Your task to perform on an android device: Open settings on Google Maps Image 0: 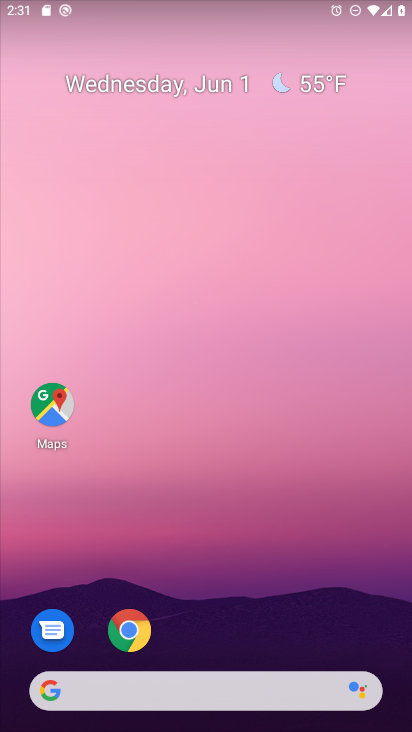
Step 0: drag from (266, 692) to (405, 618)
Your task to perform on an android device: Open settings on Google Maps Image 1: 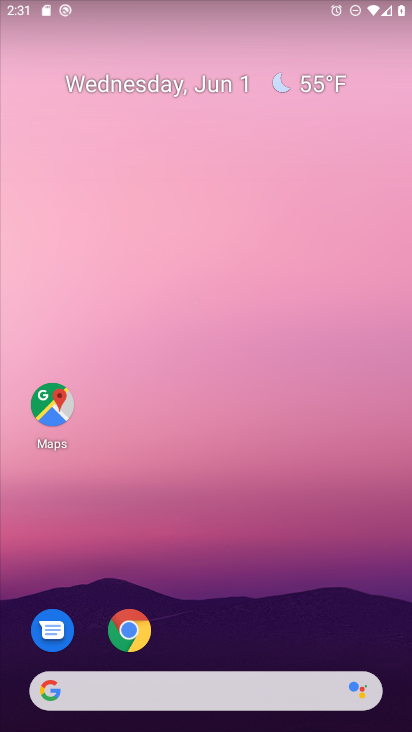
Step 1: drag from (108, 660) to (156, 4)
Your task to perform on an android device: Open settings on Google Maps Image 2: 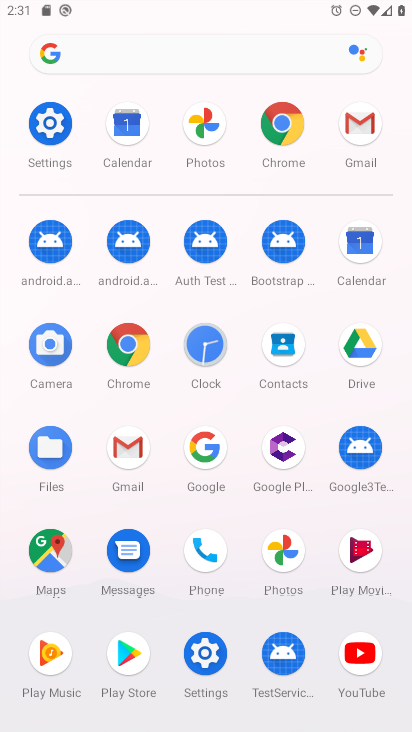
Step 2: click (39, 566)
Your task to perform on an android device: Open settings on Google Maps Image 3: 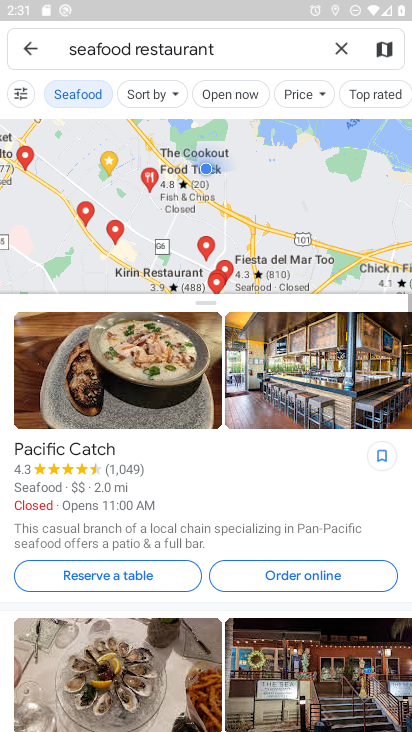
Step 3: press back button
Your task to perform on an android device: Open settings on Google Maps Image 4: 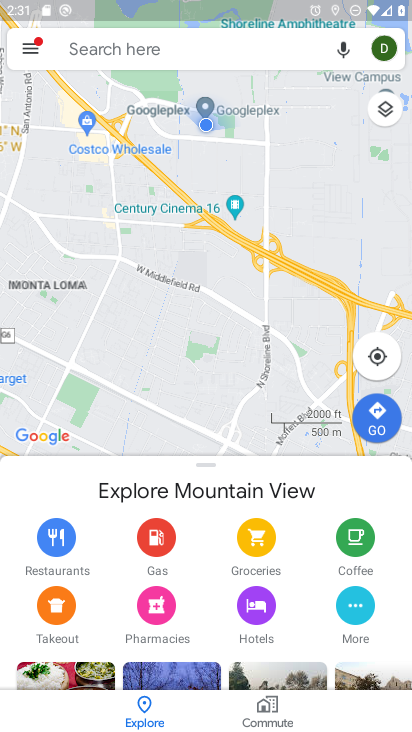
Step 4: click (33, 48)
Your task to perform on an android device: Open settings on Google Maps Image 5: 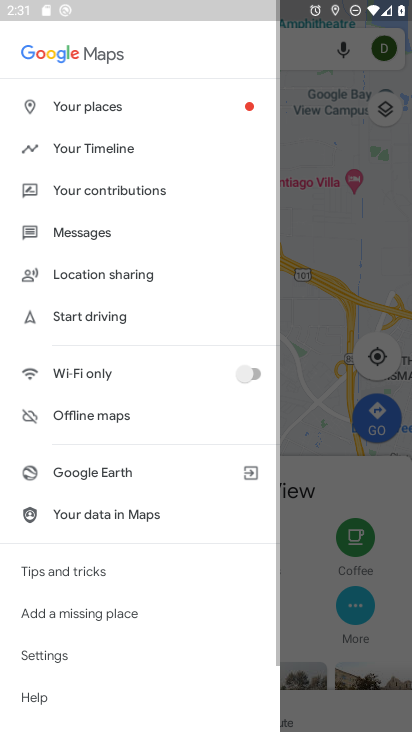
Step 5: click (83, 142)
Your task to perform on an android device: Open settings on Google Maps Image 6: 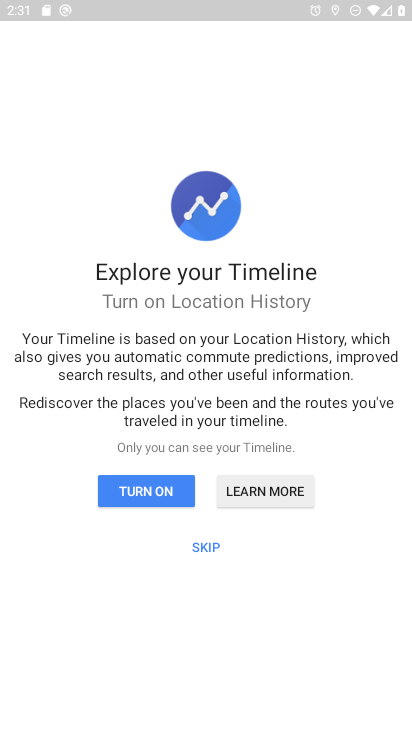
Step 6: click (198, 548)
Your task to perform on an android device: Open settings on Google Maps Image 7: 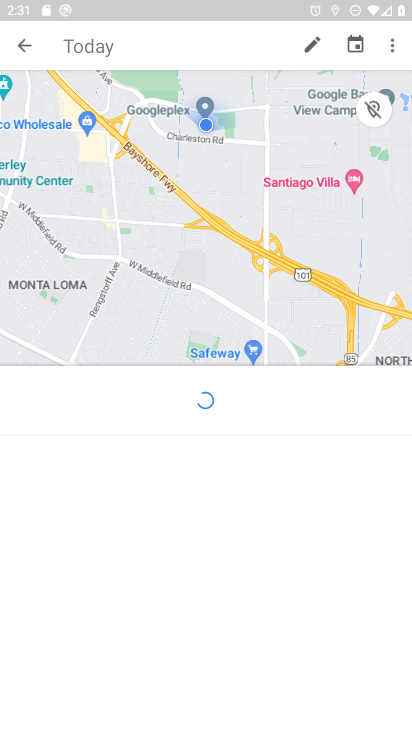
Step 7: click (388, 38)
Your task to perform on an android device: Open settings on Google Maps Image 8: 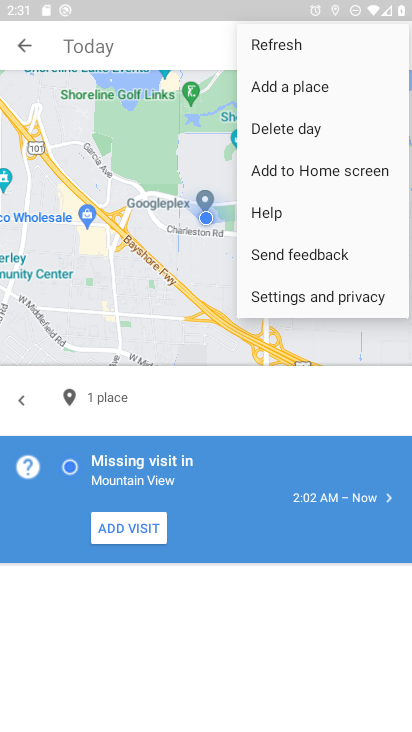
Step 8: click (313, 297)
Your task to perform on an android device: Open settings on Google Maps Image 9: 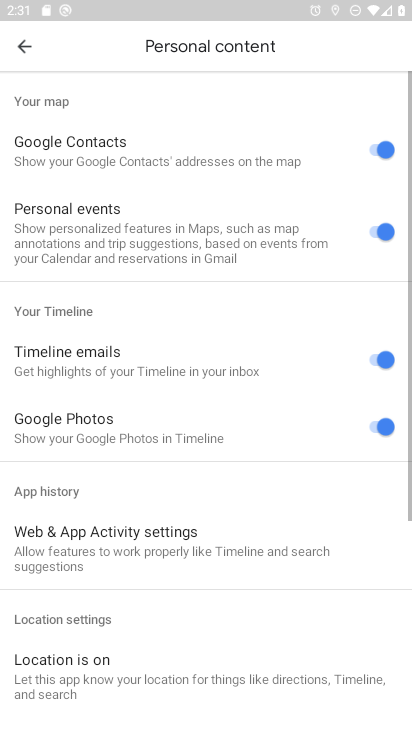
Step 9: task complete